Your task to perform on an android device: set default search engine in the chrome app Image 0: 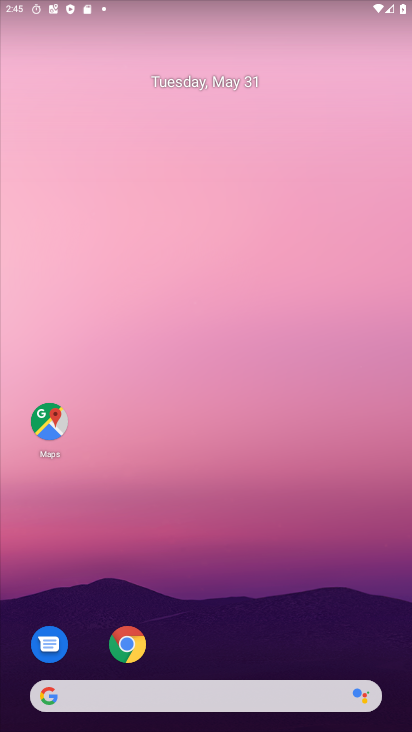
Step 0: drag from (399, 664) to (302, 93)
Your task to perform on an android device: set default search engine in the chrome app Image 1: 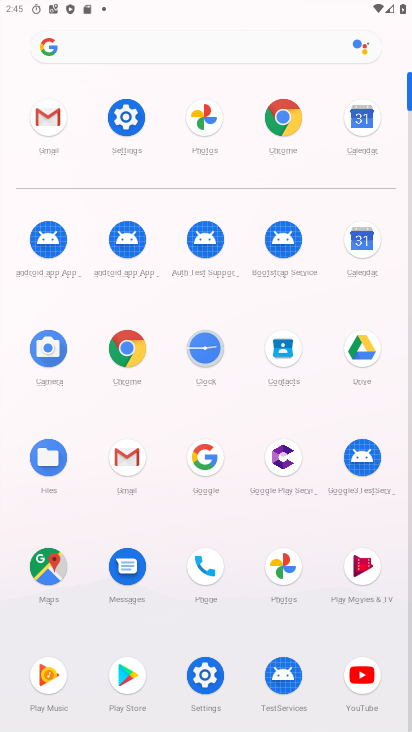
Step 1: click (288, 114)
Your task to perform on an android device: set default search engine in the chrome app Image 2: 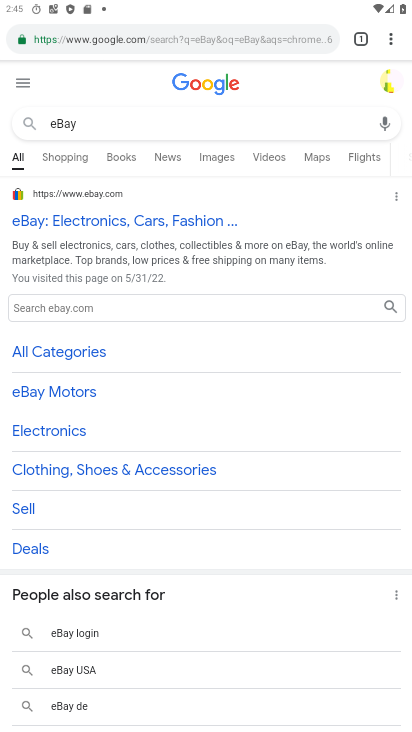
Step 2: click (390, 35)
Your task to perform on an android device: set default search engine in the chrome app Image 3: 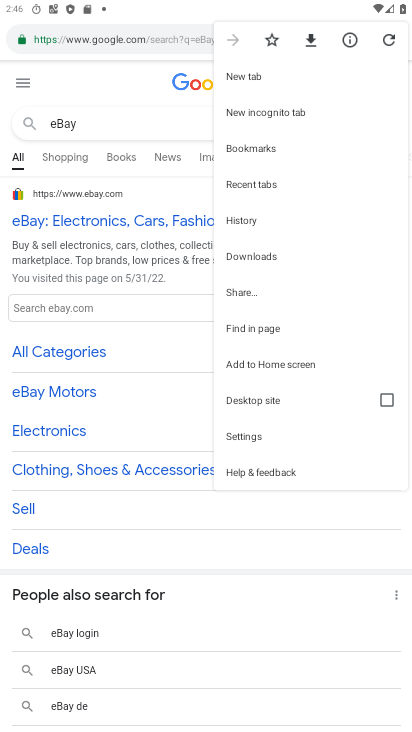
Step 3: click (254, 433)
Your task to perform on an android device: set default search engine in the chrome app Image 4: 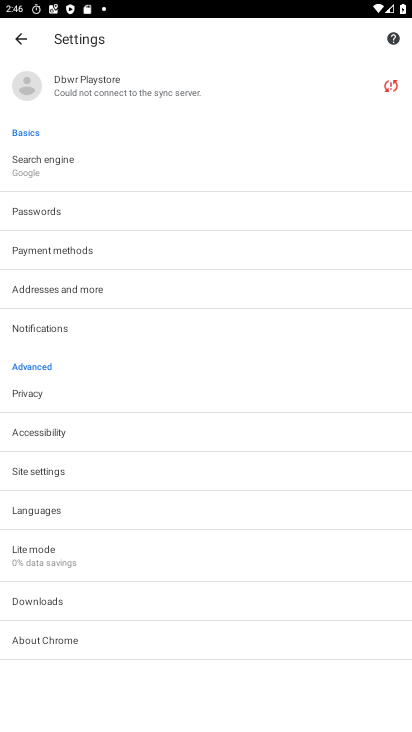
Step 4: click (53, 171)
Your task to perform on an android device: set default search engine in the chrome app Image 5: 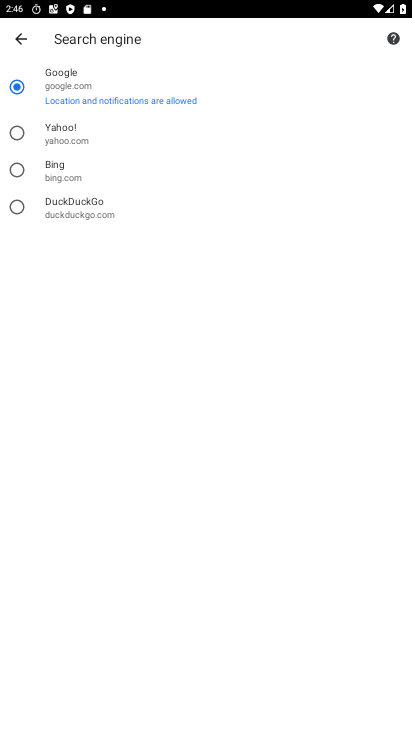
Step 5: task complete